Your task to perform on an android device: change the clock display to show seconds Image 0: 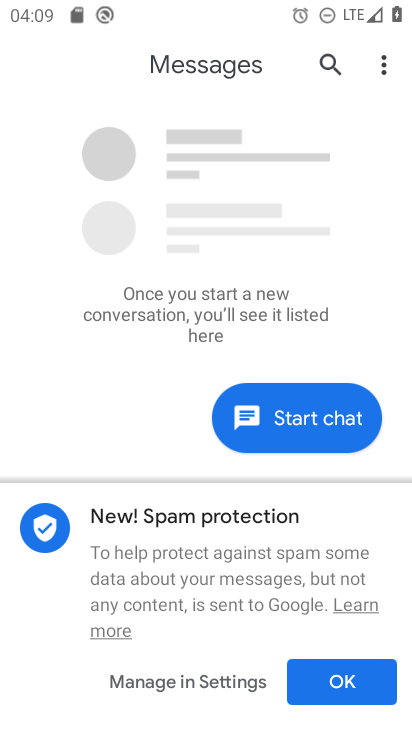
Step 0: press home button
Your task to perform on an android device: change the clock display to show seconds Image 1: 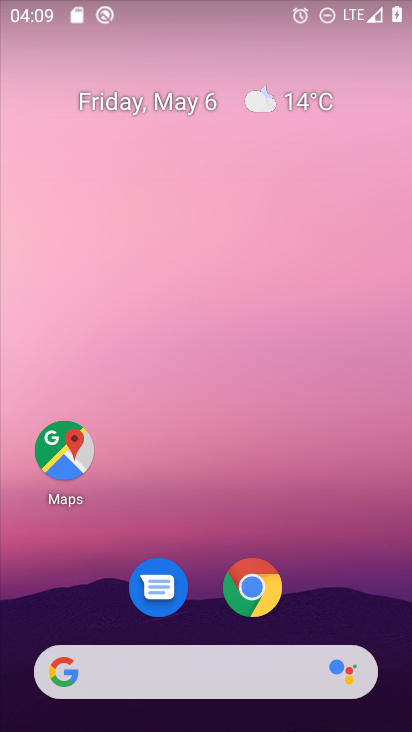
Step 1: drag from (328, 577) to (230, 0)
Your task to perform on an android device: change the clock display to show seconds Image 2: 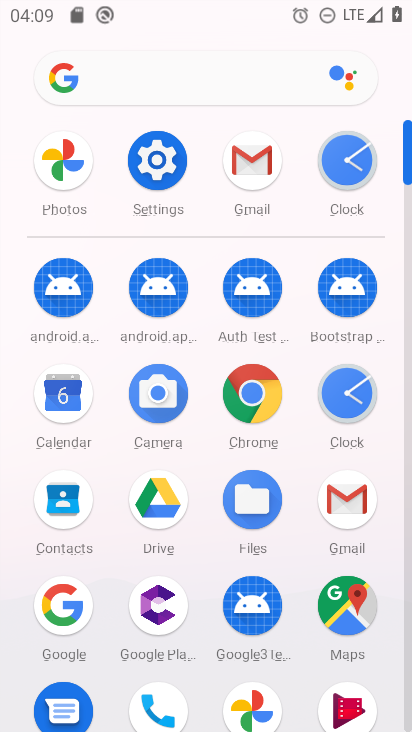
Step 2: click (347, 177)
Your task to perform on an android device: change the clock display to show seconds Image 3: 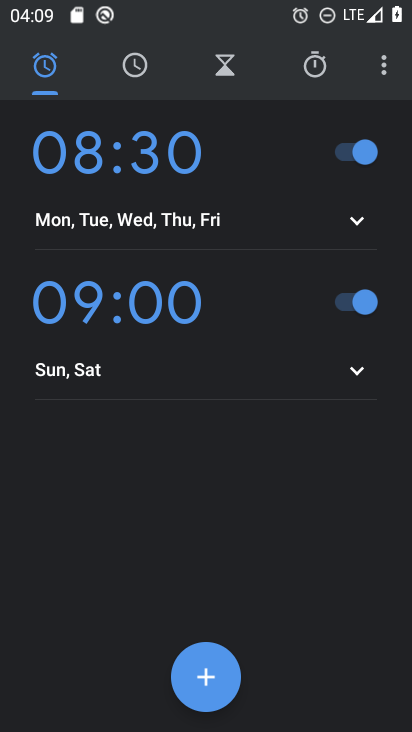
Step 3: click (378, 63)
Your task to perform on an android device: change the clock display to show seconds Image 4: 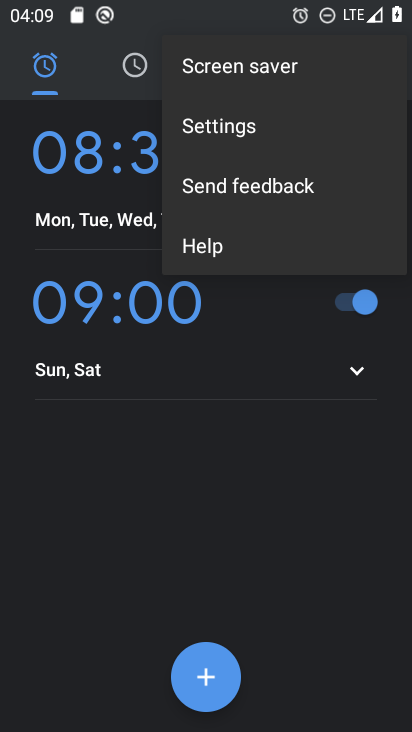
Step 4: click (235, 112)
Your task to perform on an android device: change the clock display to show seconds Image 5: 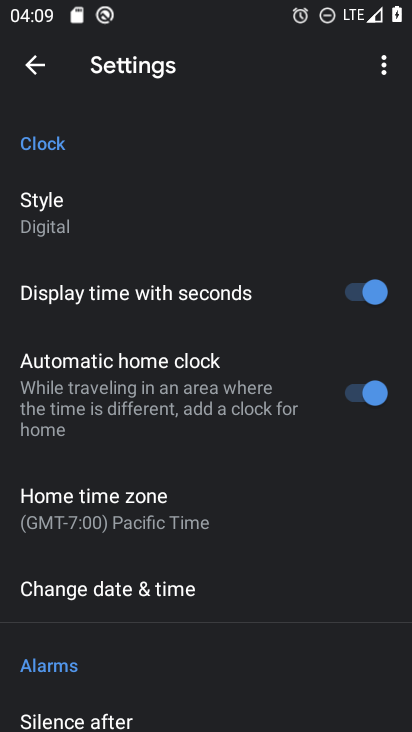
Step 5: task complete